Your task to perform on an android device: turn on data saver in the chrome app Image 0: 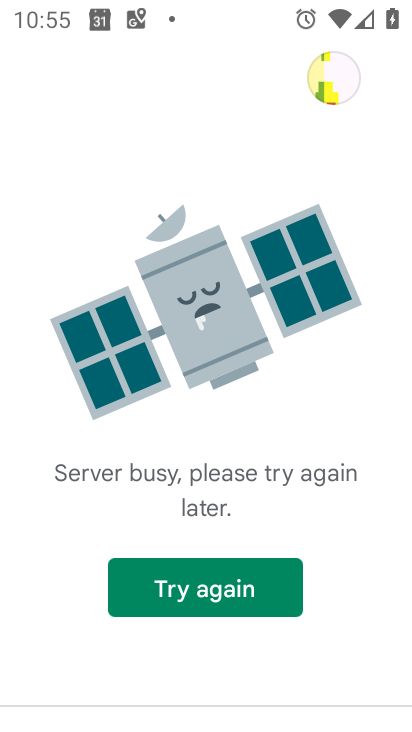
Step 0: press home button
Your task to perform on an android device: turn on data saver in the chrome app Image 1: 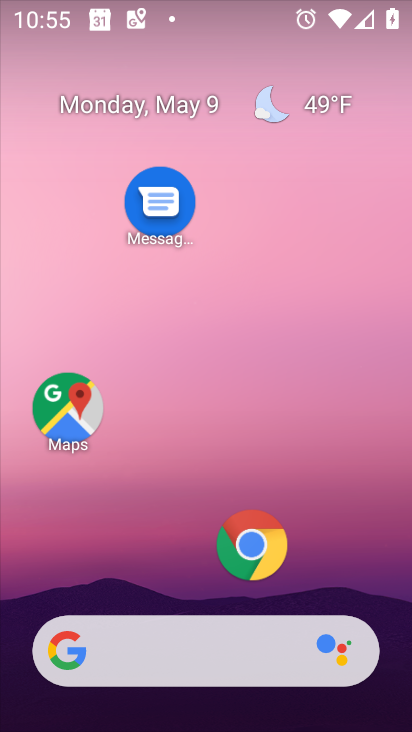
Step 1: click (274, 537)
Your task to perform on an android device: turn on data saver in the chrome app Image 2: 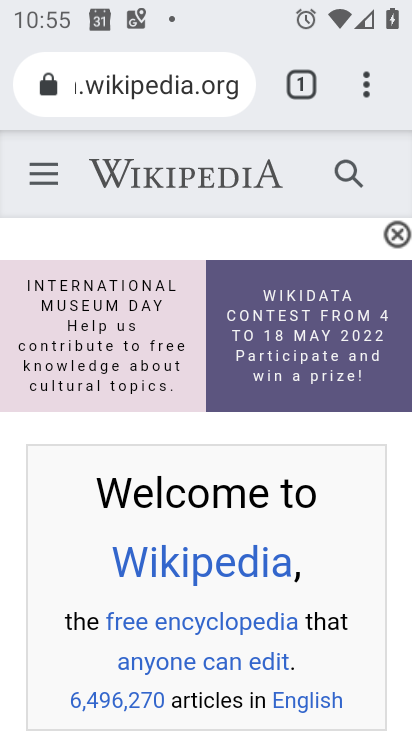
Step 2: click (382, 83)
Your task to perform on an android device: turn on data saver in the chrome app Image 3: 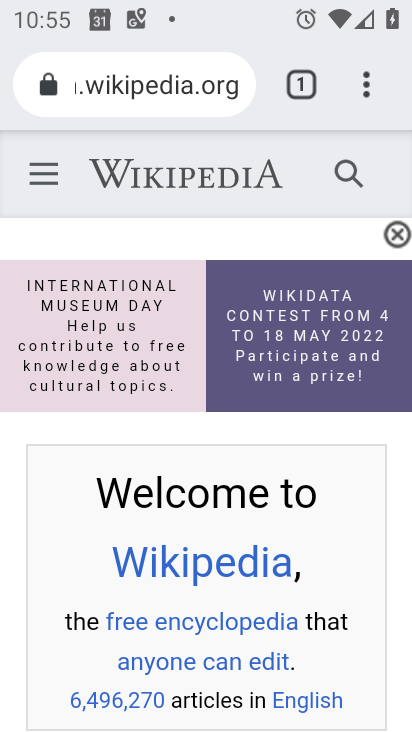
Step 3: click (373, 108)
Your task to perform on an android device: turn on data saver in the chrome app Image 4: 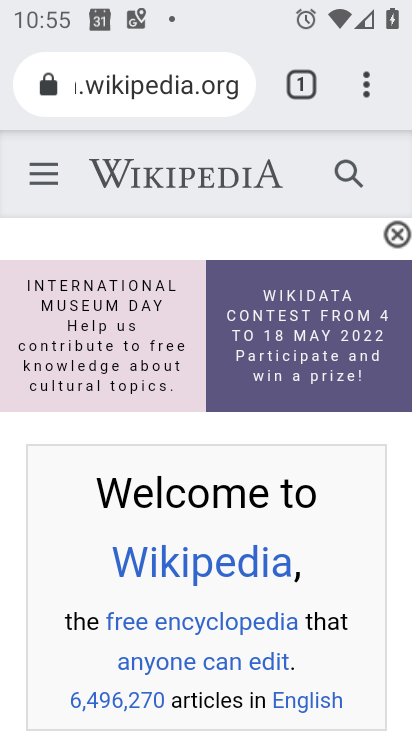
Step 4: click (367, 117)
Your task to perform on an android device: turn on data saver in the chrome app Image 5: 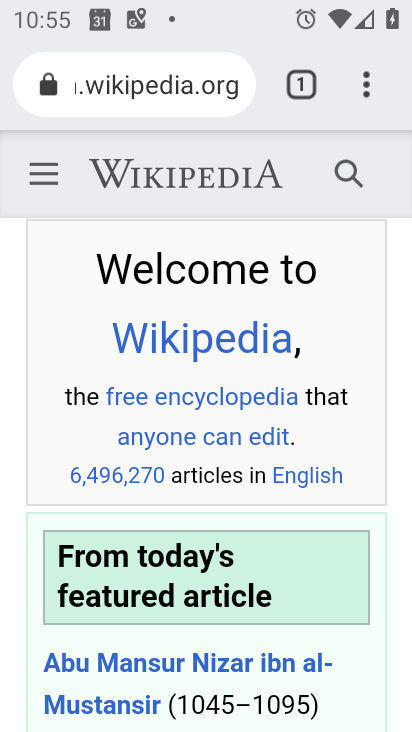
Step 5: click (356, 88)
Your task to perform on an android device: turn on data saver in the chrome app Image 6: 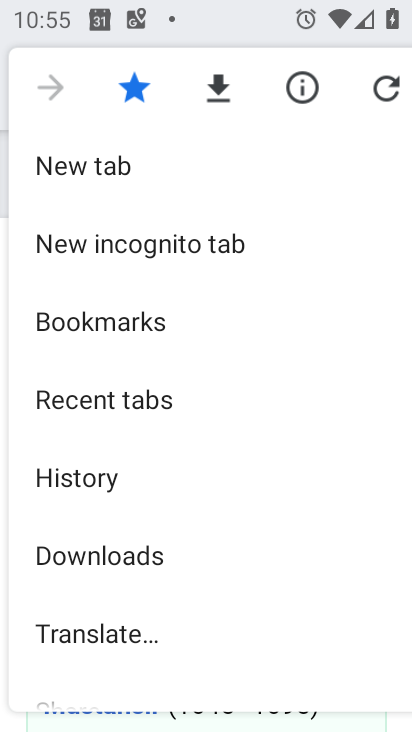
Step 6: drag from (189, 610) to (197, 203)
Your task to perform on an android device: turn on data saver in the chrome app Image 7: 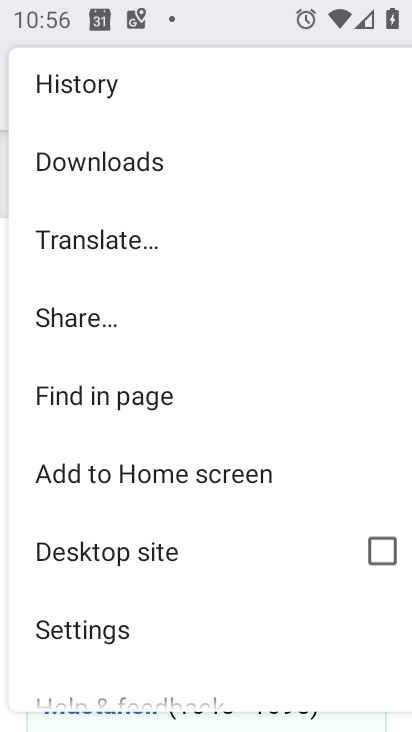
Step 7: click (165, 625)
Your task to perform on an android device: turn on data saver in the chrome app Image 8: 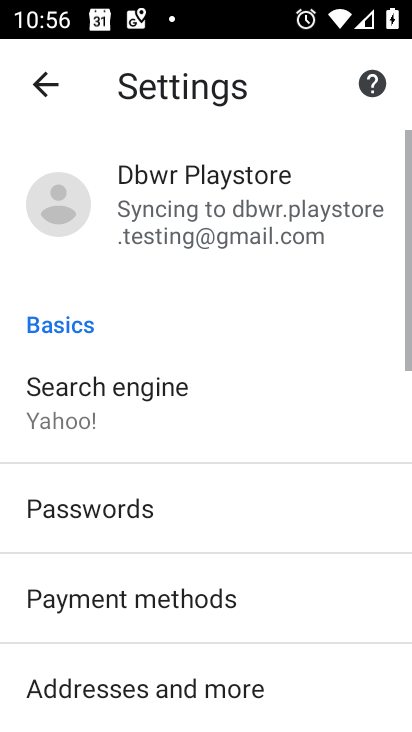
Step 8: drag from (175, 621) to (190, 181)
Your task to perform on an android device: turn on data saver in the chrome app Image 9: 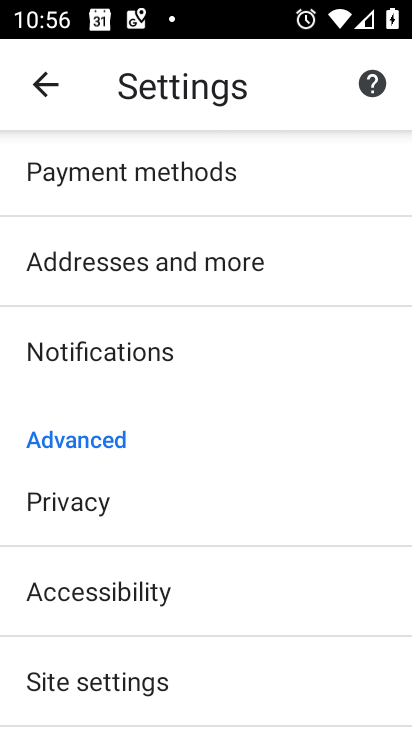
Step 9: drag from (181, 637) to (182, 281)
Your task to perform on an android device: turn on data saver in the chrome app Image 10: 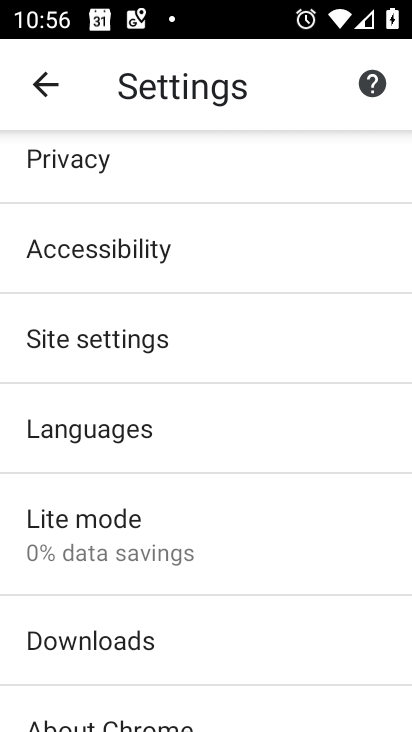
Step 10: click (172, 536)
Your task to perform on an android device: turn on data saver in the chrome app Image 11: 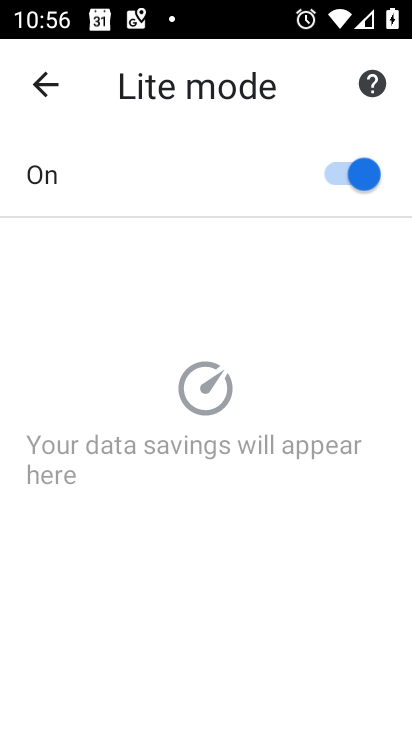
Step 11: task complete